Your task to perform on an android device: open app "Indeed Job Search" Image 0: 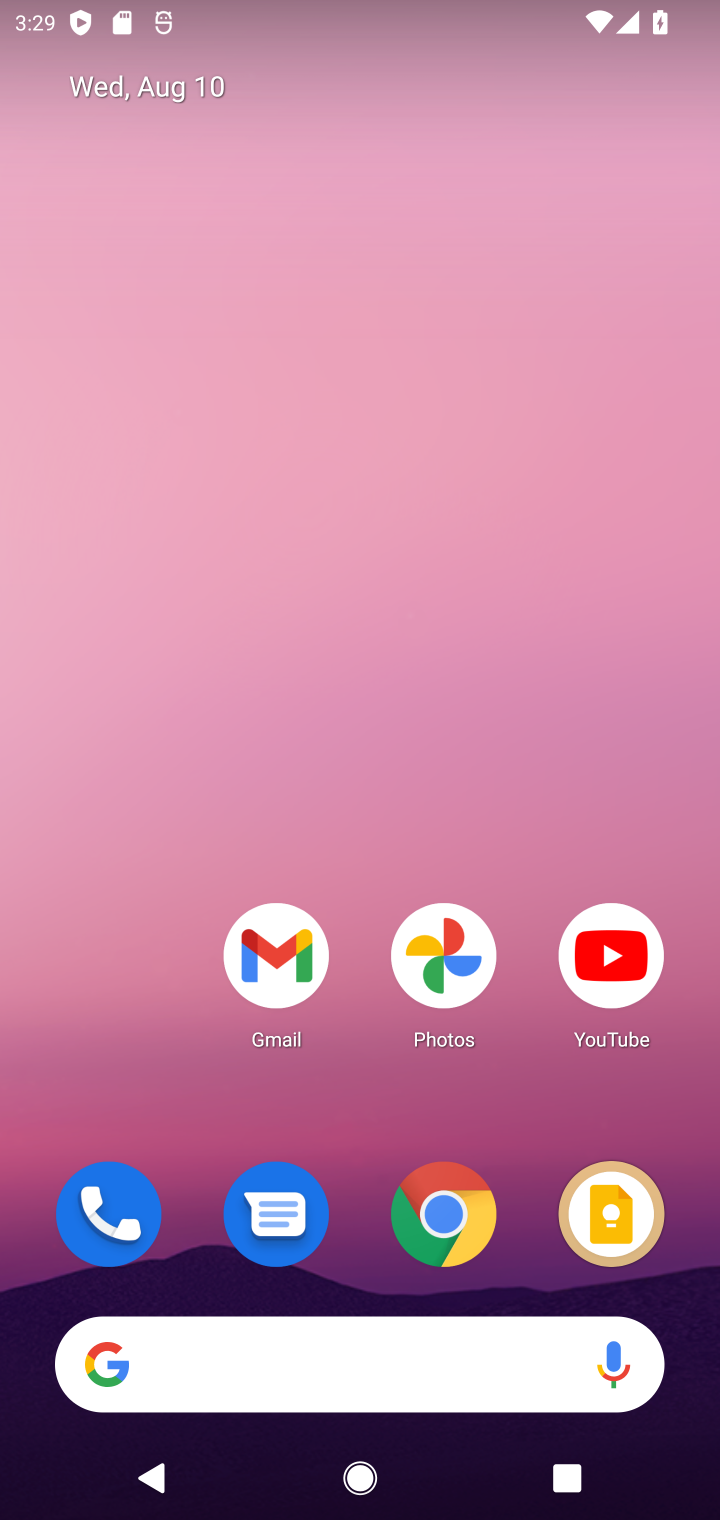
Step 0: drag from (468, 856) to (423, 323)
Your task to perform on an android device: open app "Indeed Job Search" Image 1: 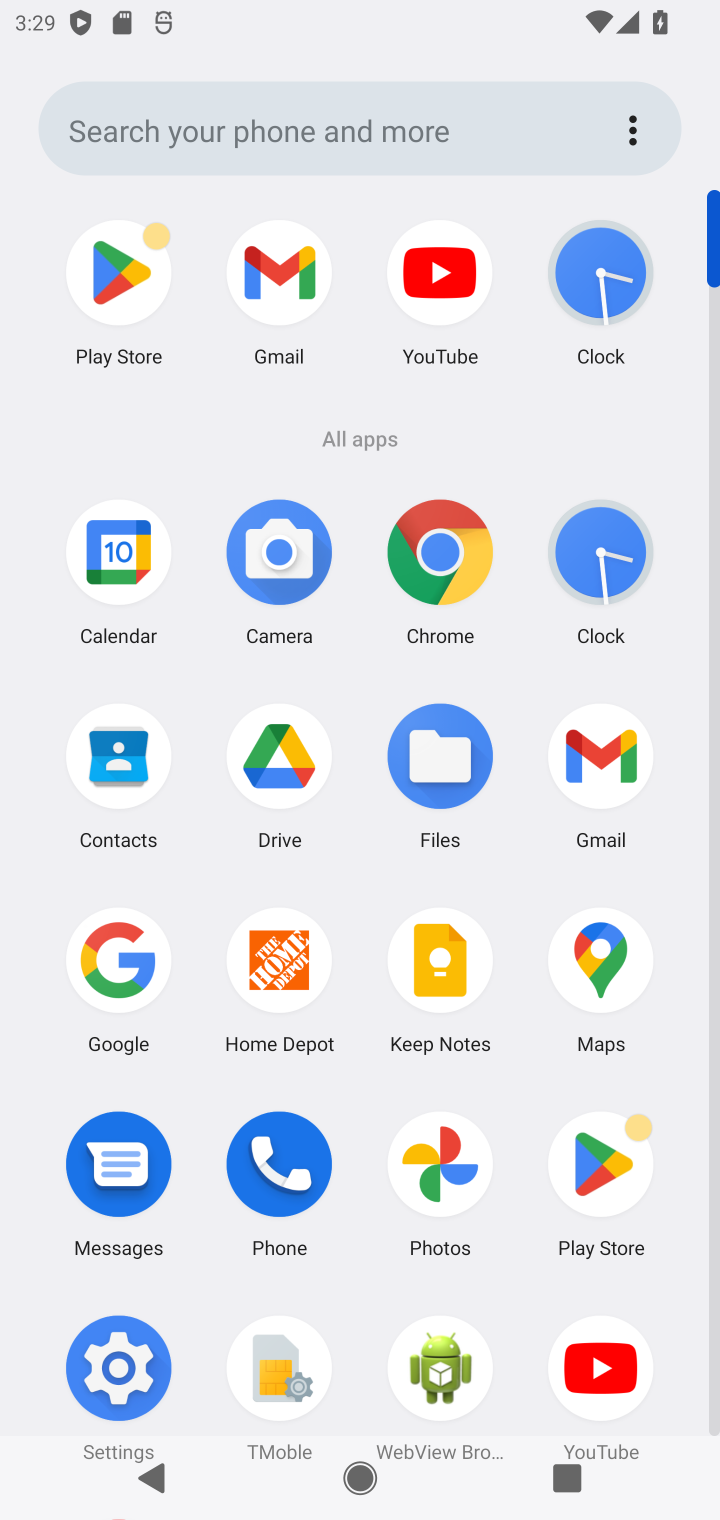
Step 1: click (616, 1174)
Your task to perform on an android device: open app "Indeed Job Search" Image 2: 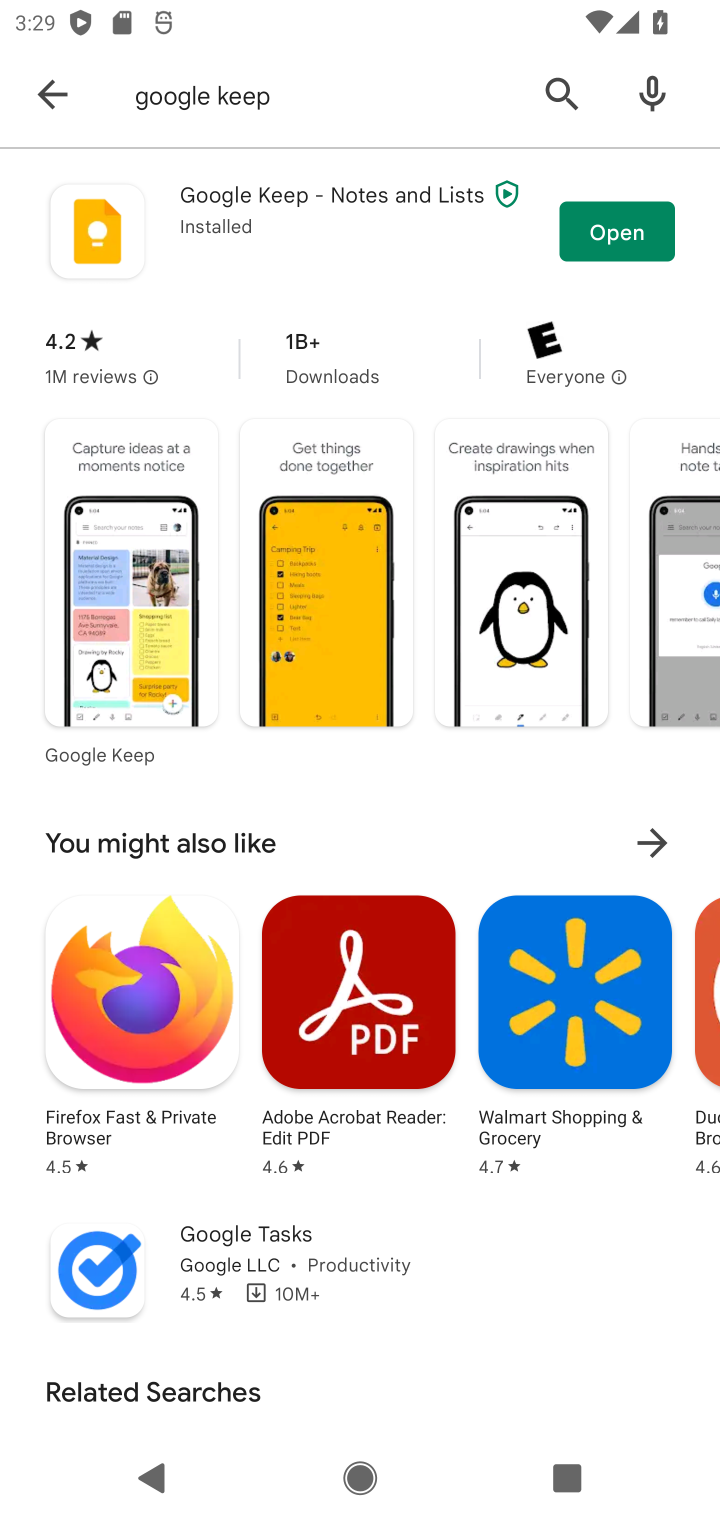
Step 2: click (385, 99)
Your task to perform on an android device: open app "Indeed Job Search" Image 3: 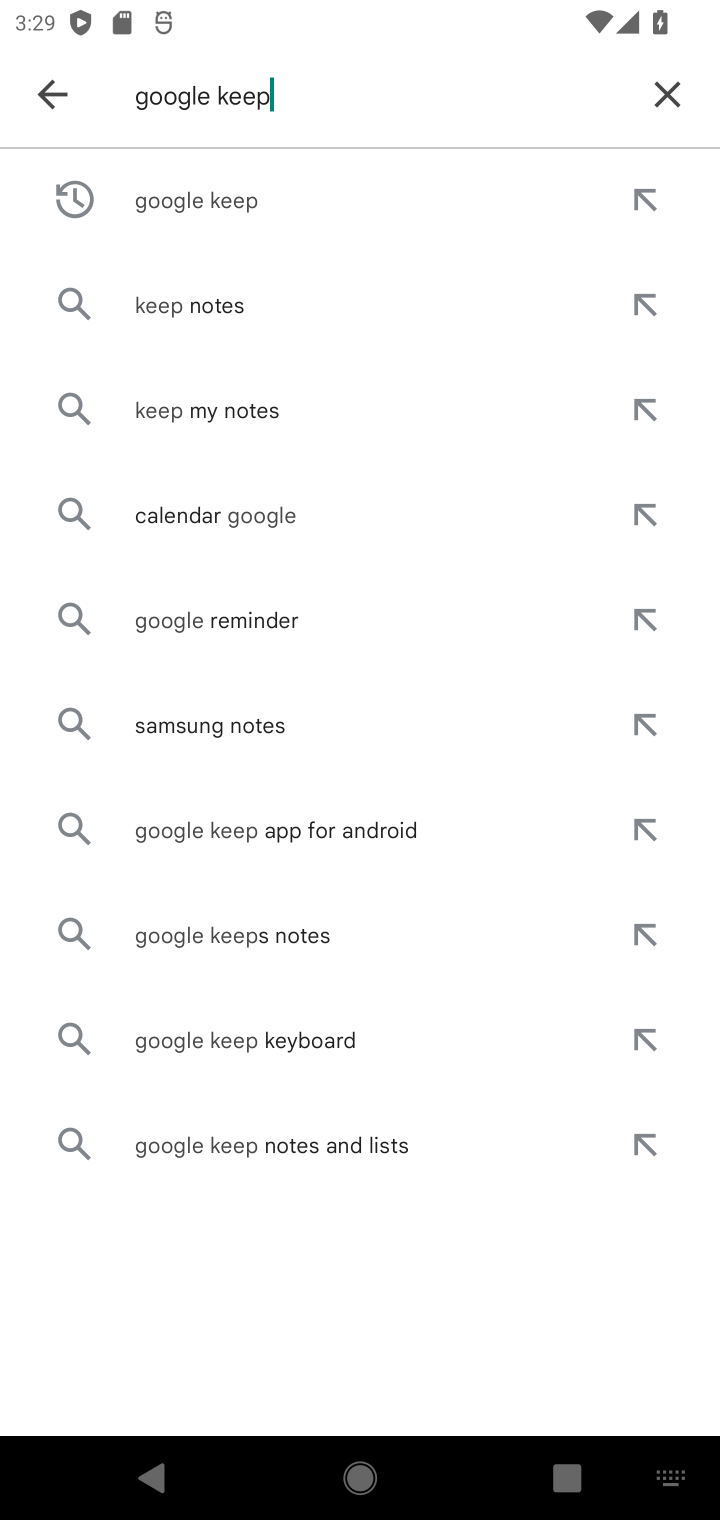
Step 3: click (655, 100)
Your task to perform on an android device: open app "Indeed Job Search" Image 4: 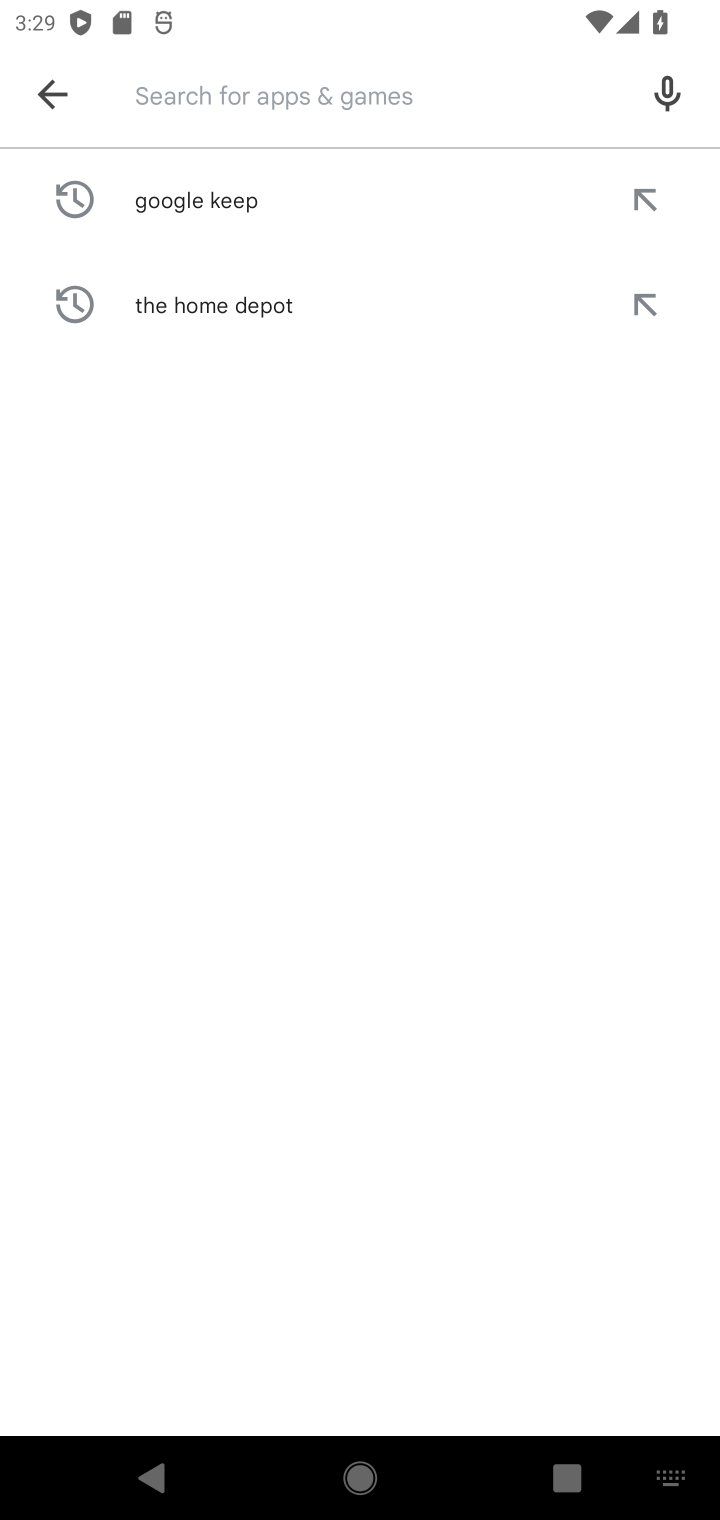
Step 4: click (446, 100)
Your task to perform on an android device: open app "Indeed Job Search" Image 5: 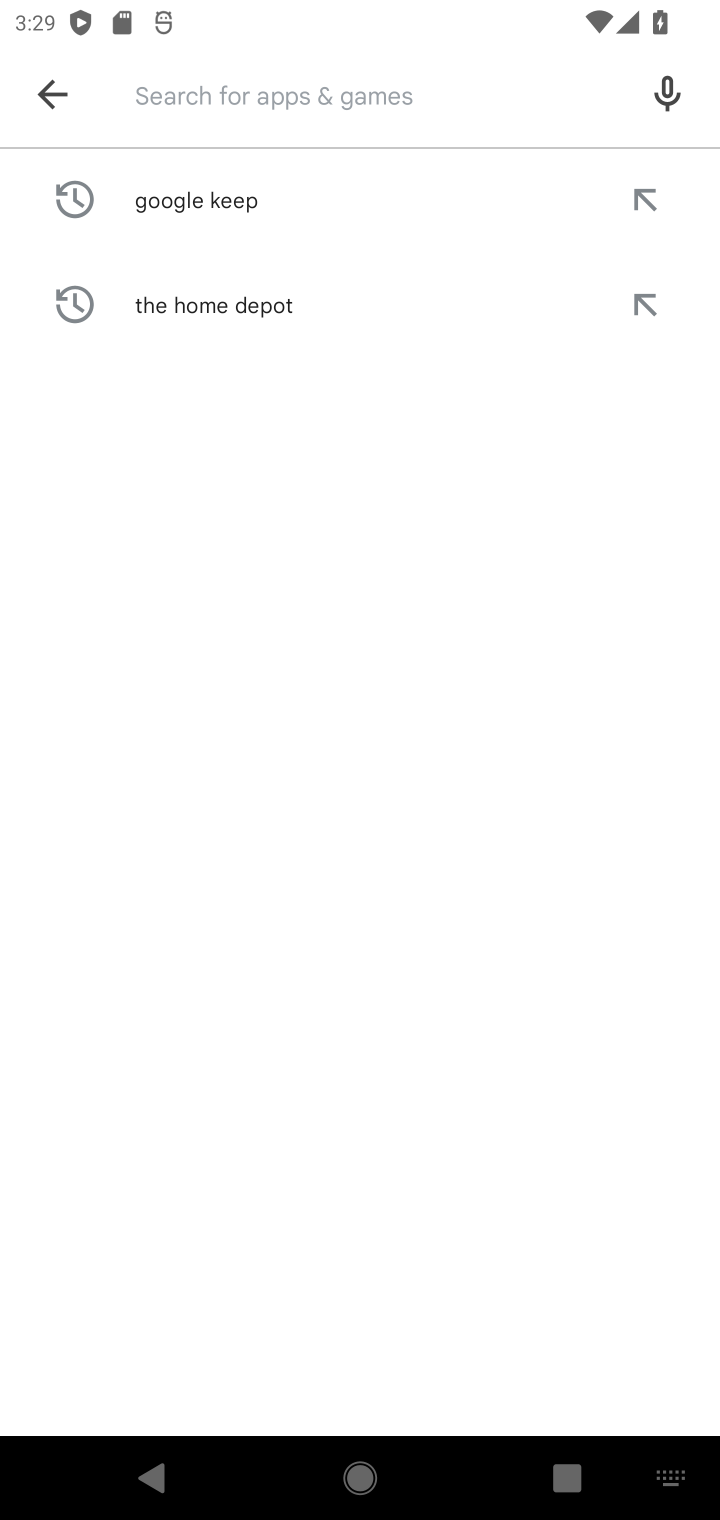
Step 5: type "indeed job search"
Your task to perform on an android device: open app "Indeed Job Search" Image 6: 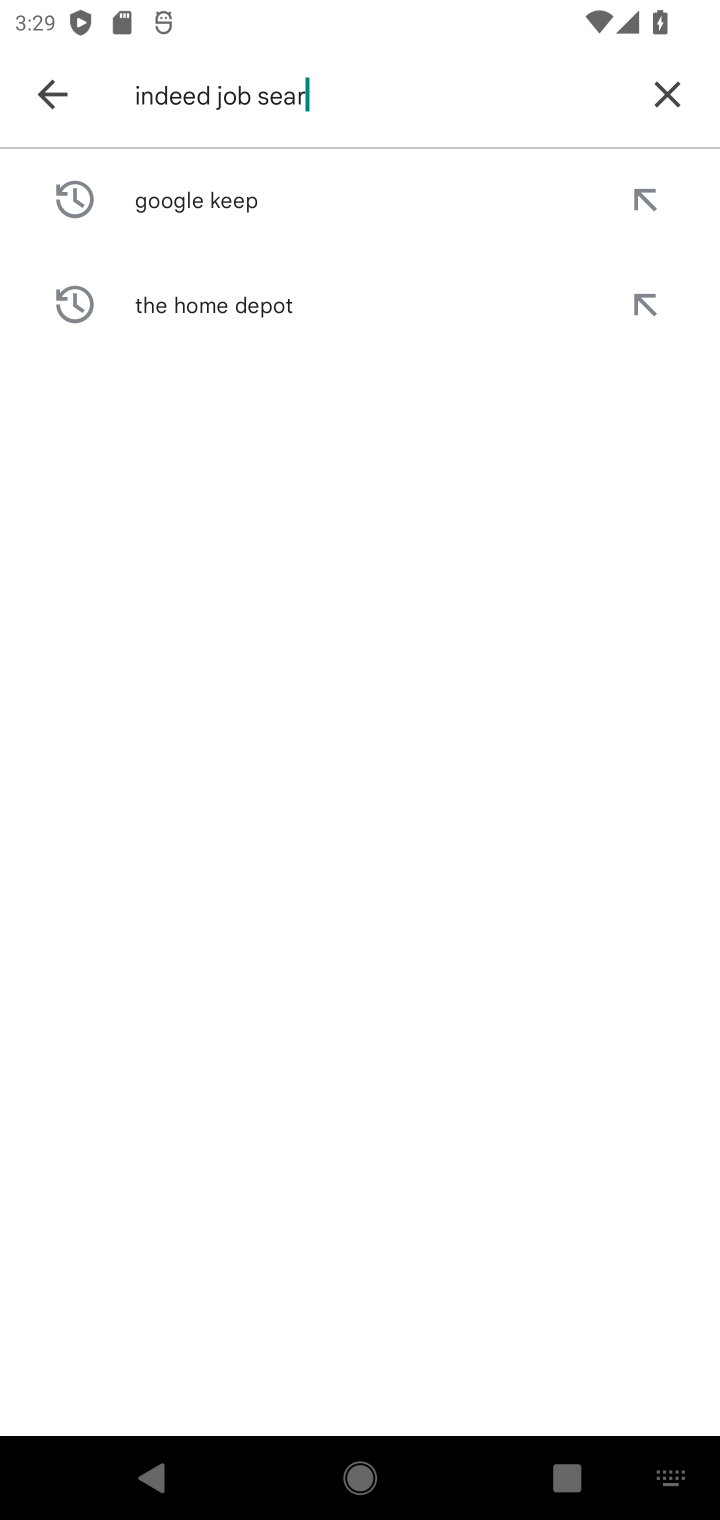
Step 6: type ""
Your task to perform on an android device: open app "Indeed Job Search" Image 7: 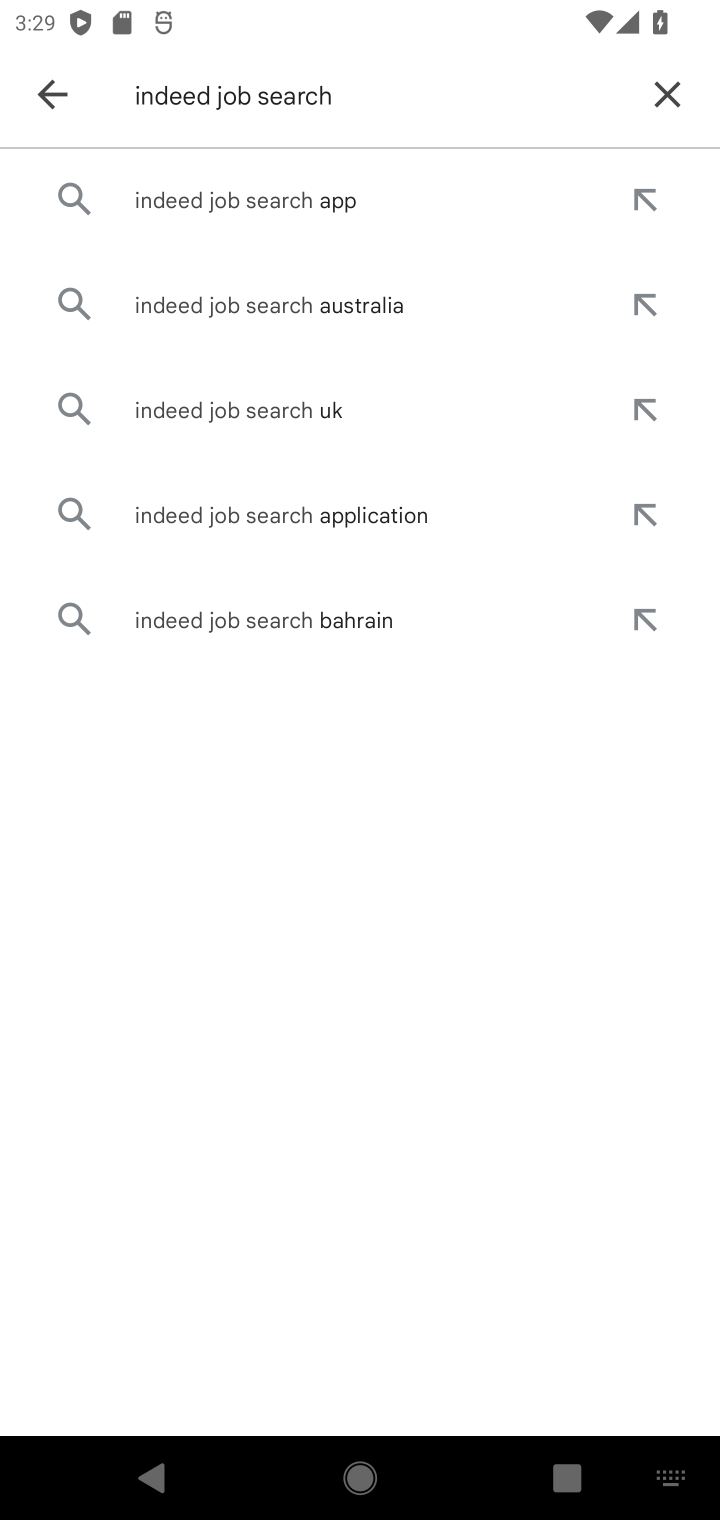
Step 7: click (356, 192)
Your task to perform on an android device: open app "Indeed Job Search" Image 8: 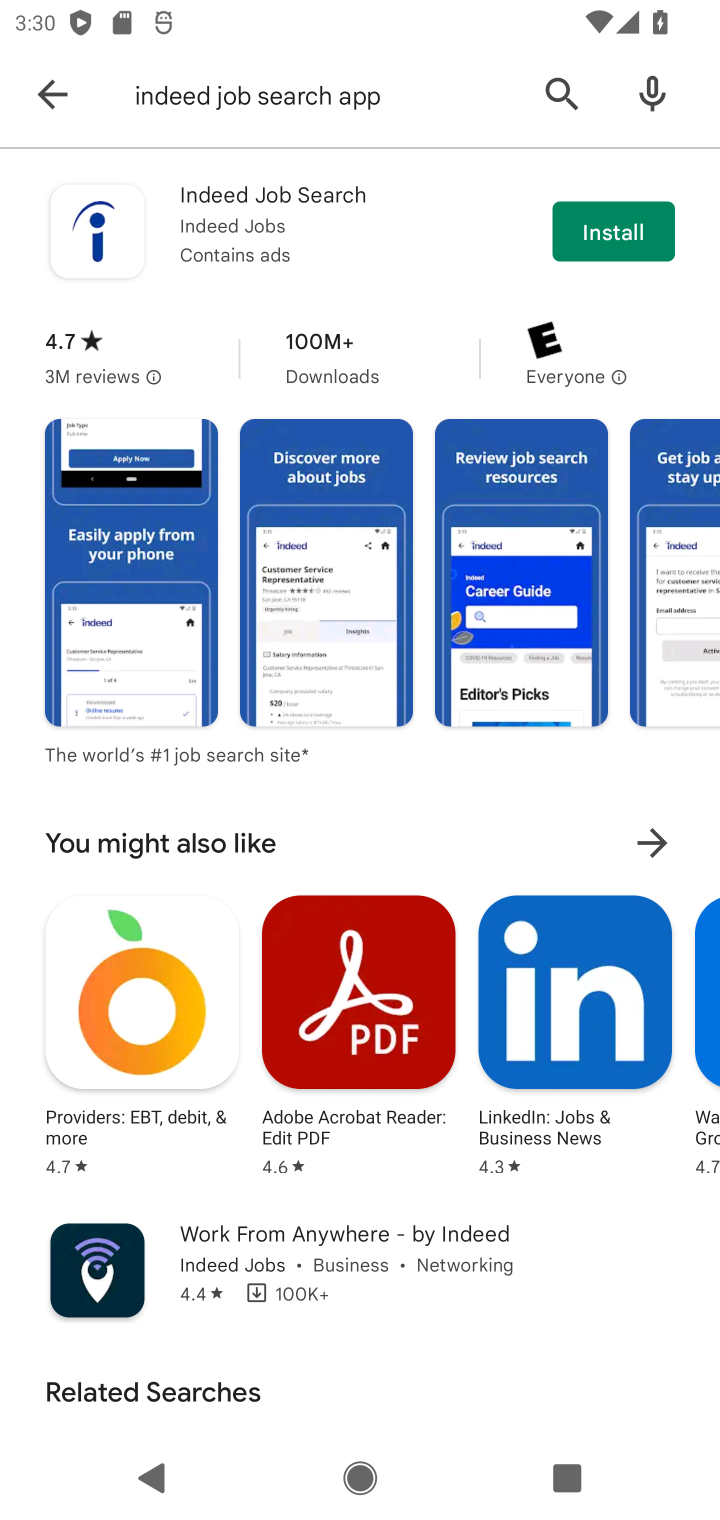
Step 8: click (617, 238)
Your task to perform on an android device: open app "Indeed Job Search" Image 9: 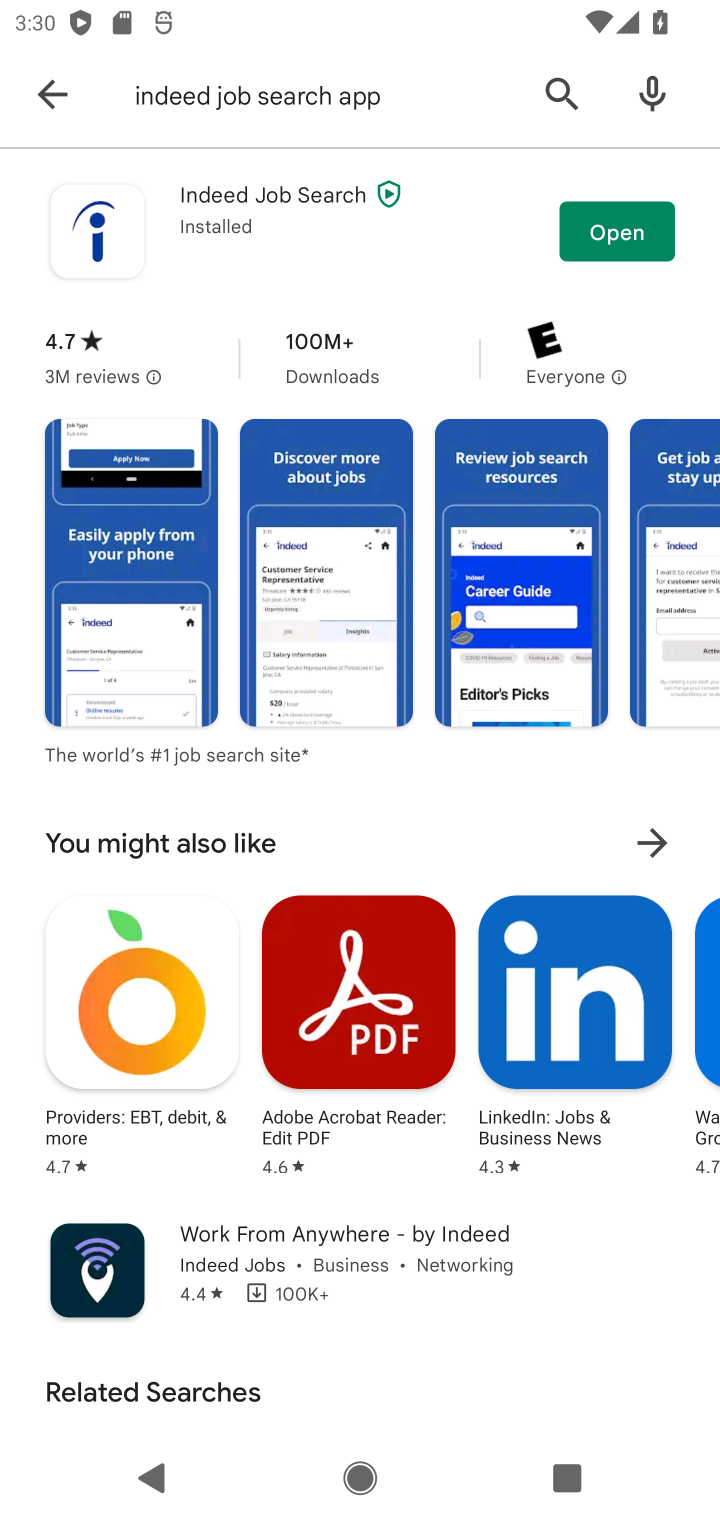
Step 9: click (610, 250)
Your task to perform on an android device: open app "Indeed Job Search" Image 10: 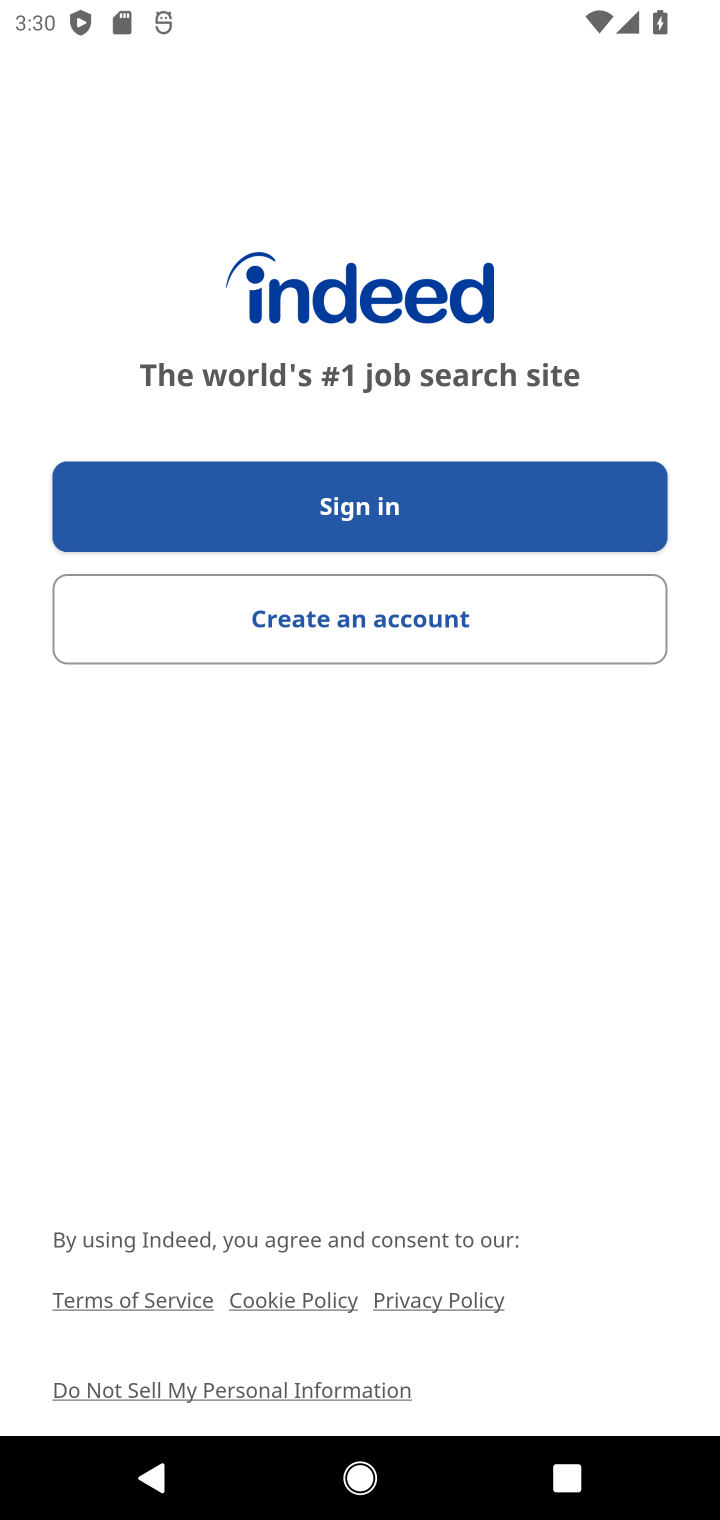
Step 10: task complete